Your task to perform on an android device: Open the phone app and click the voicemail tab. Image 0: 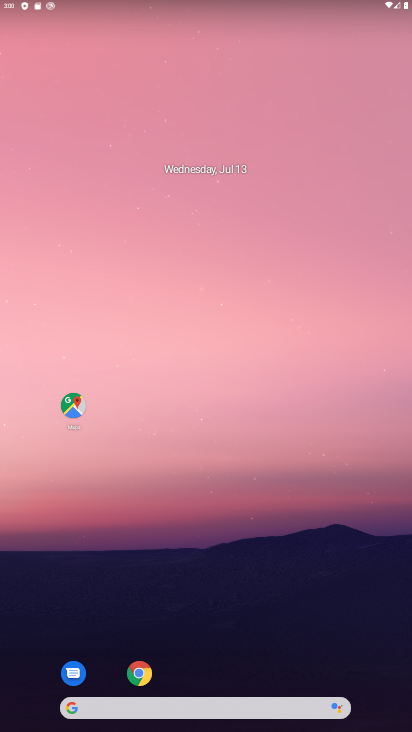
Step 0: drag from (265, 667) to (328, 136)
Your task to perform on an android device: Open the phone app and click the voicemail tab. Image 1: 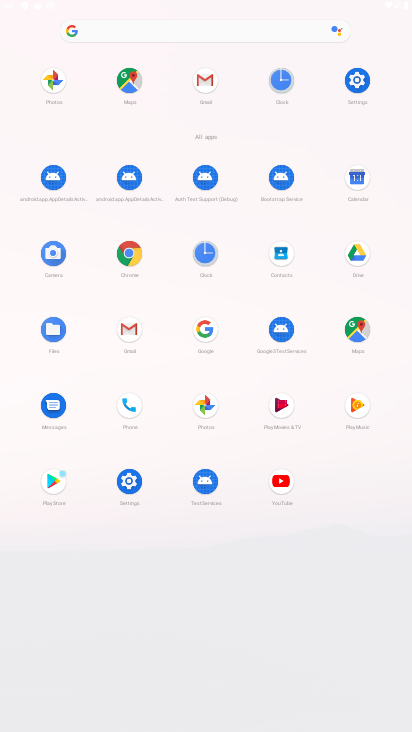
Step 1: click (120, 409)
Your task to perform on an android device: Open the phone app and click the voicemail tab. Image 2: 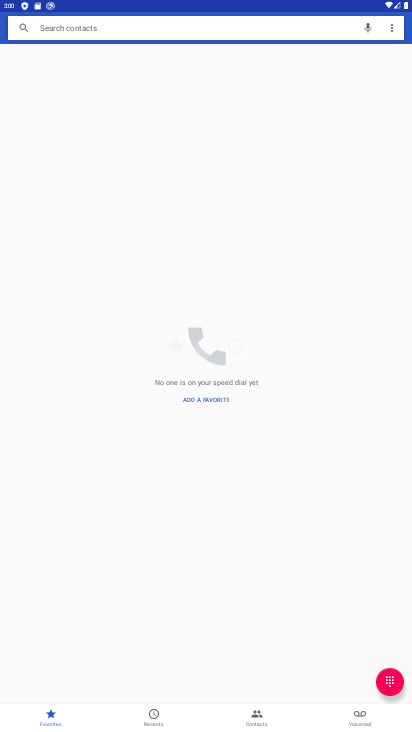
Step 2: click (358, 715)
Your task to perform on an android device: Open the phone app and click the voicemail tab. Image 3: 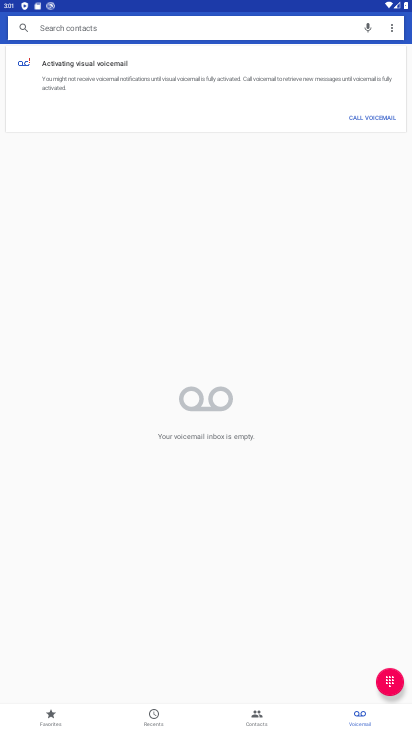
Step 3: task complete